Your task to perform on an android device: Search for Italian restaurants on Maps Image 0: 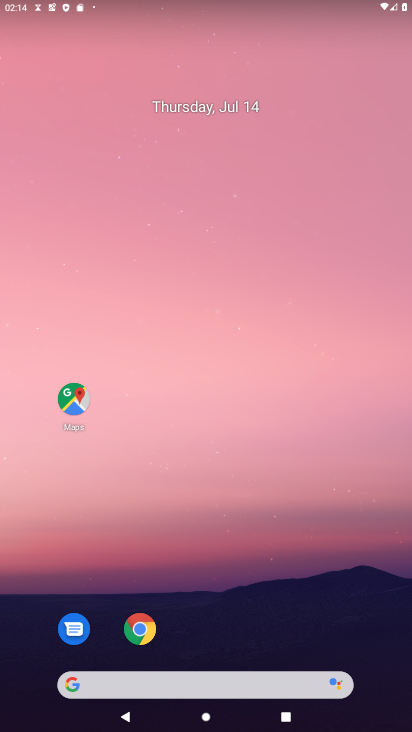
Step 0: click (66, 396)
Your task to perform on an android device: Search for Italian restaurants on Maps Image 1: 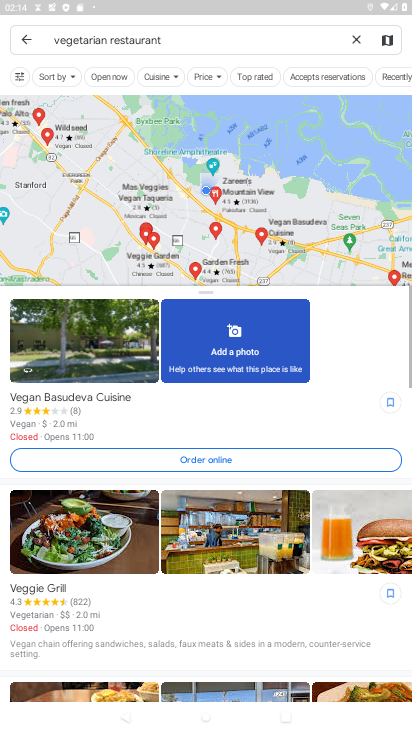
Step 1: click (356, 39)
Your task to perform on an android device: Search for Italian restaurants on Maps Image 2: 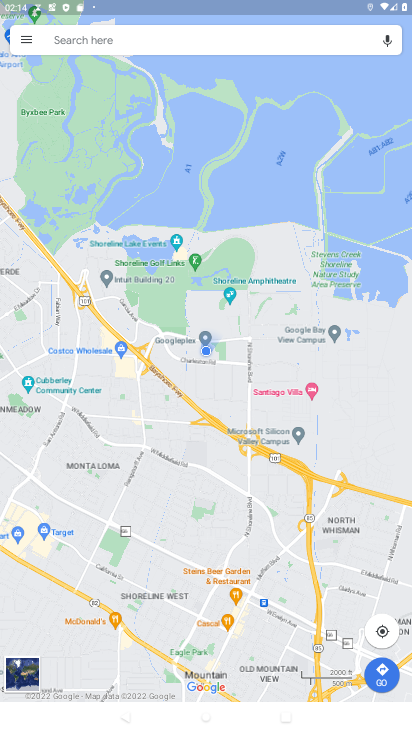
Step 2: click (221, 47)
Your task to perform on an android device: Search for Italian restaurants on Maps Image 3: 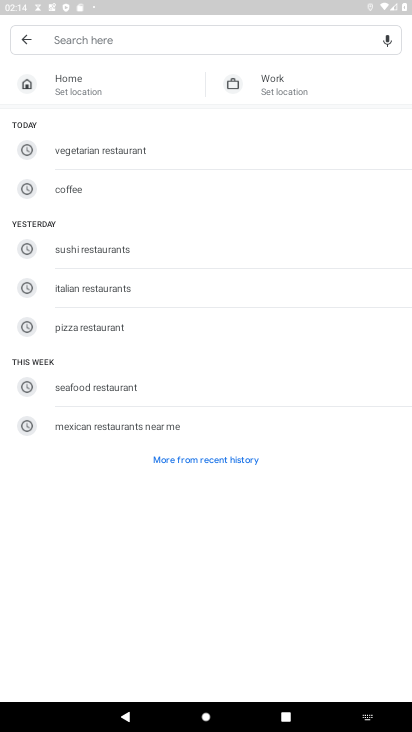
Step 3: type "italian restaurants"
Your task to perform on an android device: Search for Italian restaurants on Maps Image 4: 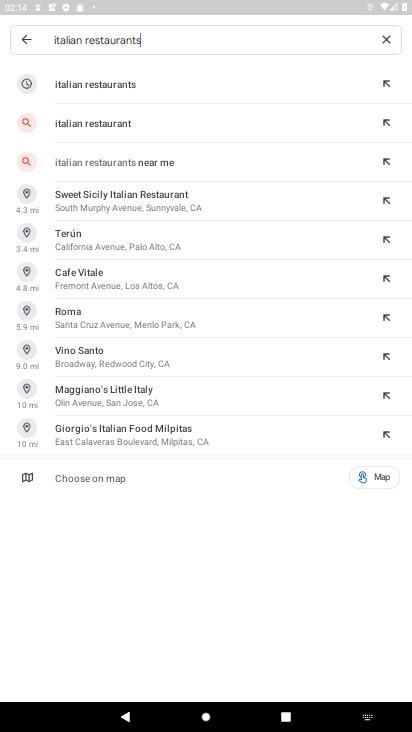
Step 4: click (110, 91)
Your task to perform on an android device: Search for Italian restaurants on Maps Image 5: 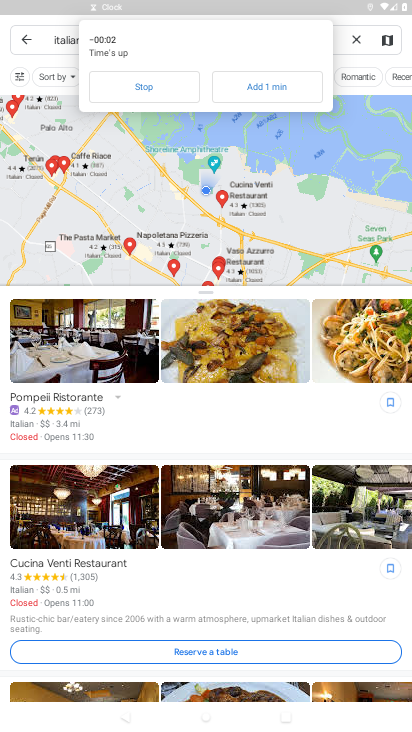
Step 5: task complete